Your task to perform on an android device: change alarm snooze length Image 0: 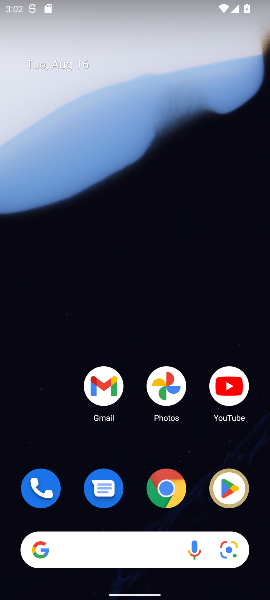
Step 0: drag from (153, 321) to (136, 9)
Your task to perform on an android device: change alarm snooze length Image 1: 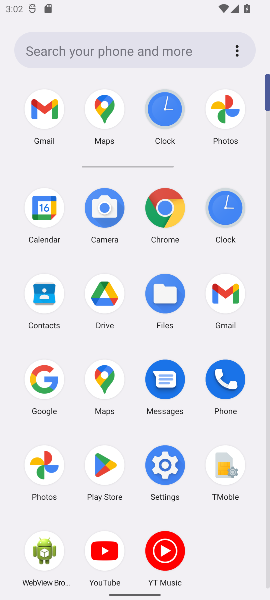
Step 1: click (221, 213)
Your task to perform on an android device: change alarm snooze length Image 2: 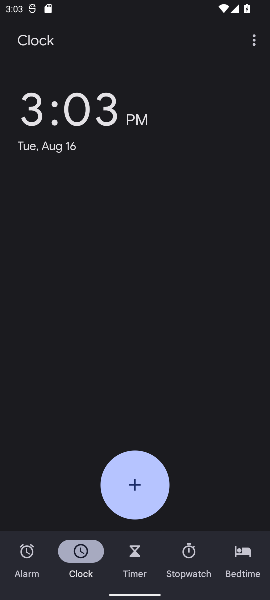
Step 2: task complete